Your task to perform on an android device: Go to display settings Image 0: 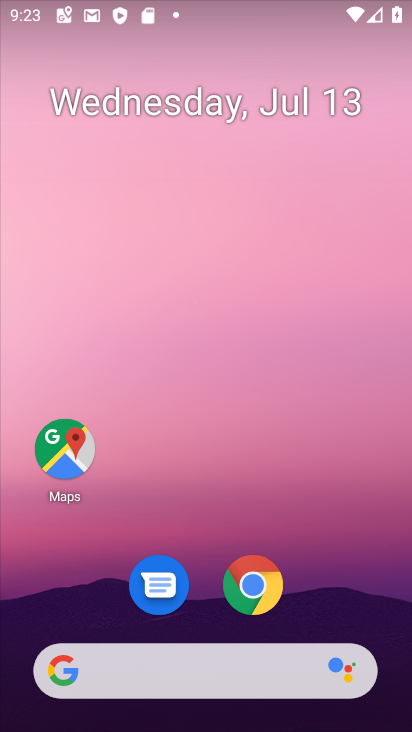
Step 0: drag from (262, 476) to (263, 30)
Your task to perform on an android device: Go to display settings Image 1: 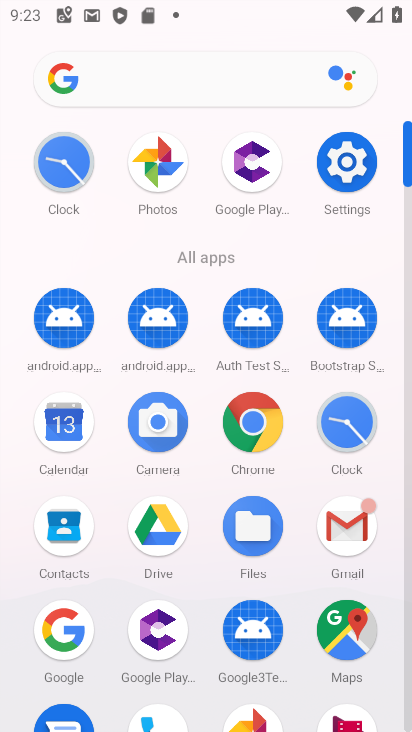
Step 1: click (344, 165)
Your task to perform on an android device: Go to display settings Image 2: 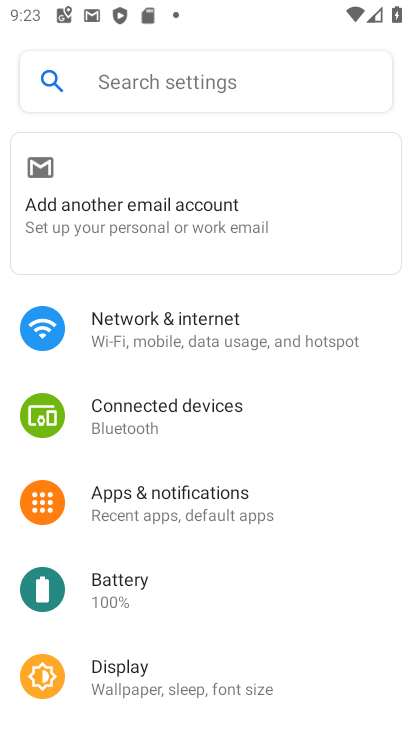
Step 2: click (168, 677)
Your task to perform on an android device: Go to display settings Image 3: 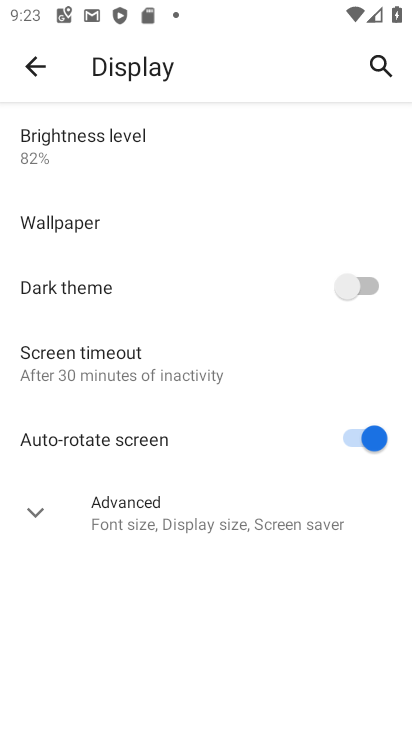
Step 3: task complete